Your task to perform on an android device: Open wifi settings Image 0: 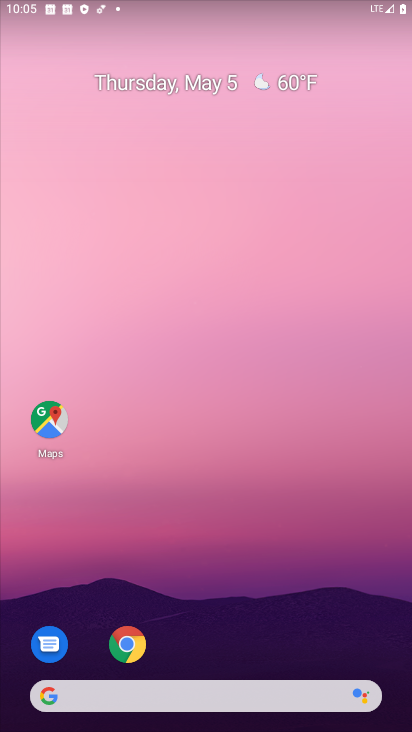
Step 0: drag from (188, 662) to (198, 354)
Your task to perform on an android device: Open wifi settings Image 1: 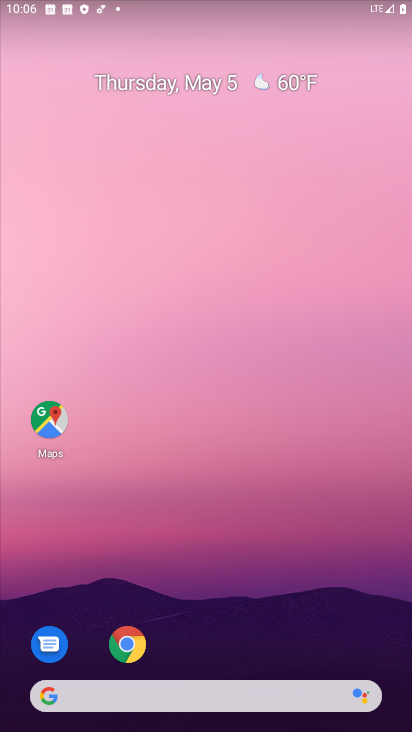
Step 1: drag from (213, 647) to (185, 262)
Your task to perform on an android device: Open wifi settings Image 2: 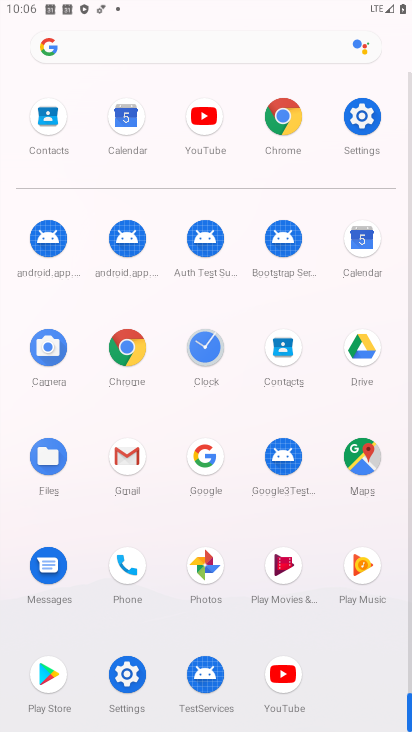
Step 2: click (356, 133)
Your task to perform on an android device: Open wifi settings Image 3: 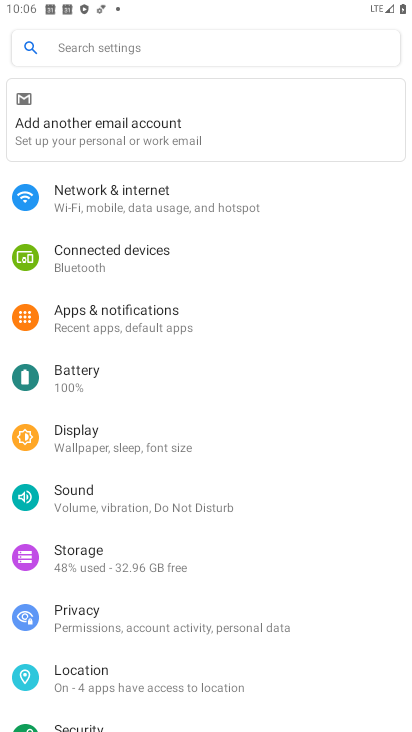
Step 3: drag from (194, 638) to (233, 240)
Your task to perform on an android device: Open wifi settings Image 4: 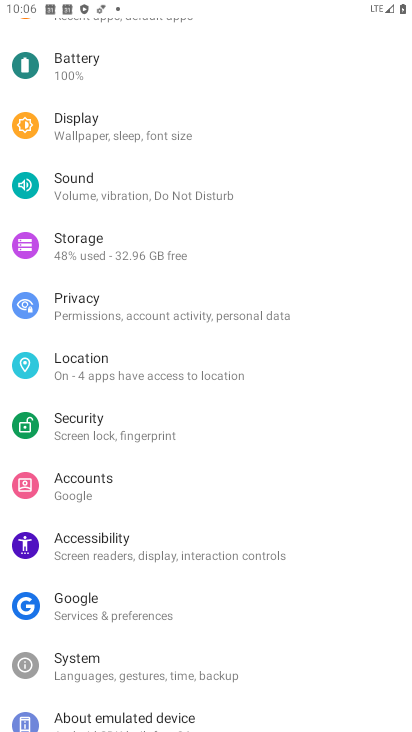
Step 4: drag from (202, 206) to (218, 727)
Your task to perform on an android device: Open wifi settings Image 5: 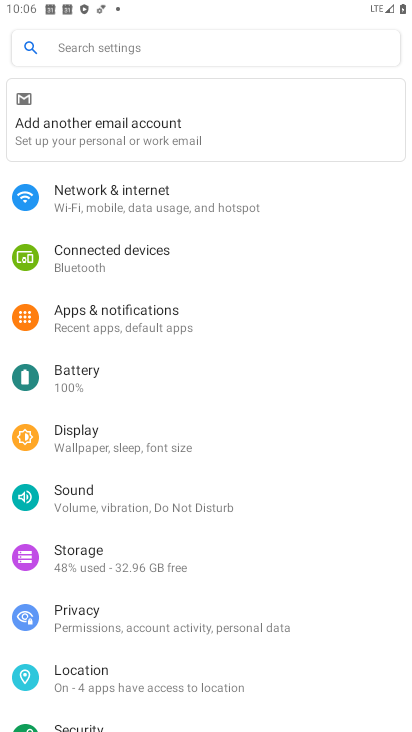
Step 5: click (162, 199)
Your task to perform on an android device: Open wifi settings Image 6: 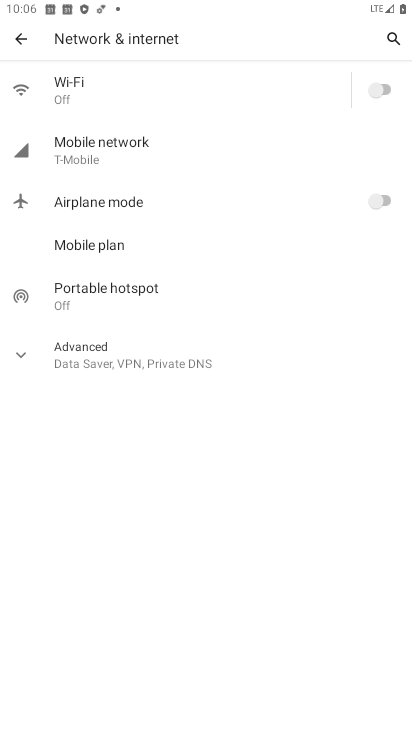
Step 6: click (93, 100)
Your task to perform on an android device: Open wifi settings Image 7: 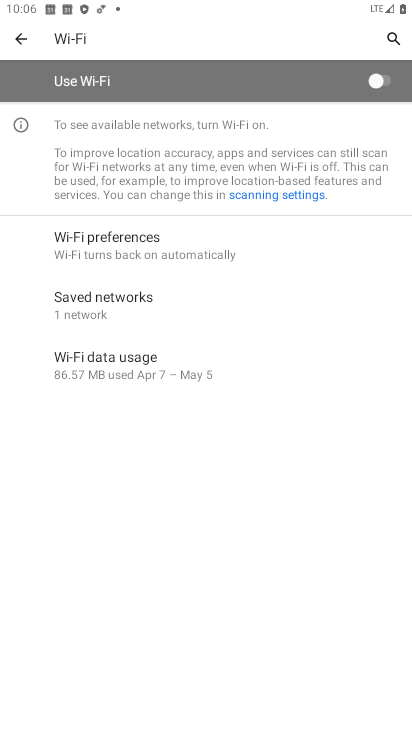
Step 7: task complete